Your task to perform on an android device: open sync settings in chrome Image 0: 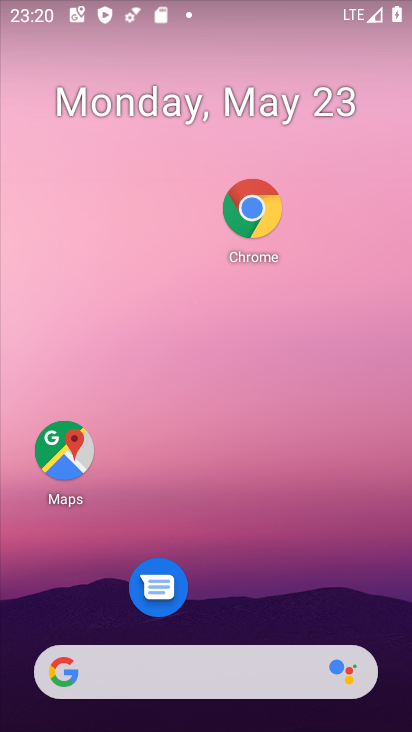
Step 0: drag from (260, 724) to (188, 106)
Your task to perform on an android device: open sync settings in chrome Image 1: 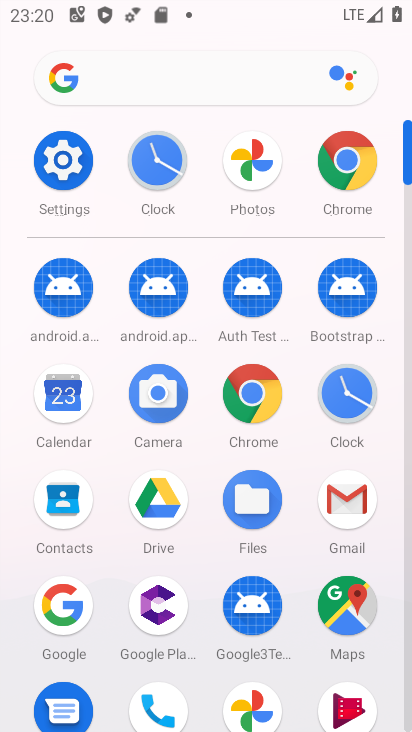
Step 1: click (351, 154)
Your task to perform on an android device: open sync settings in chrome Image 2: 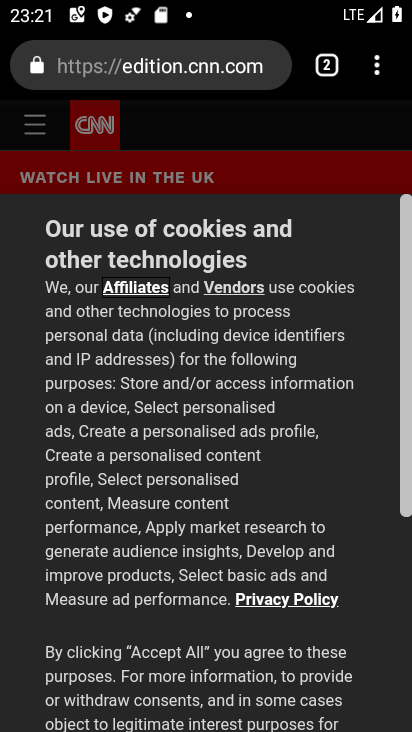
Step 2: drag from (388, 63) to (144, 629)
Your task to perform on an android device: open sync settings in chrome Image 3: 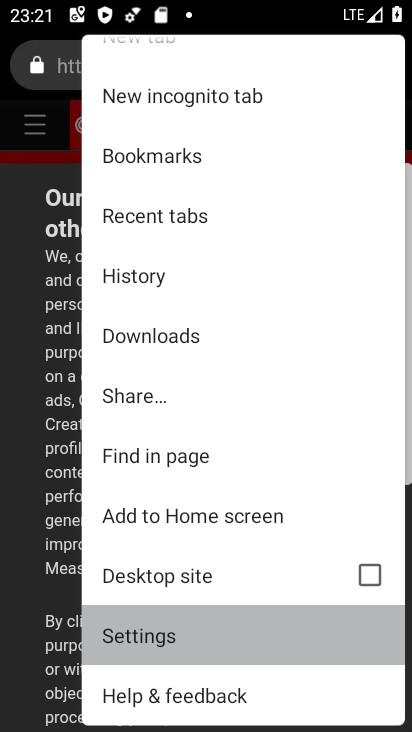
Step 3: click (143, 629)
Your task to perform on an android device: open sync settings in chrome Image 4: 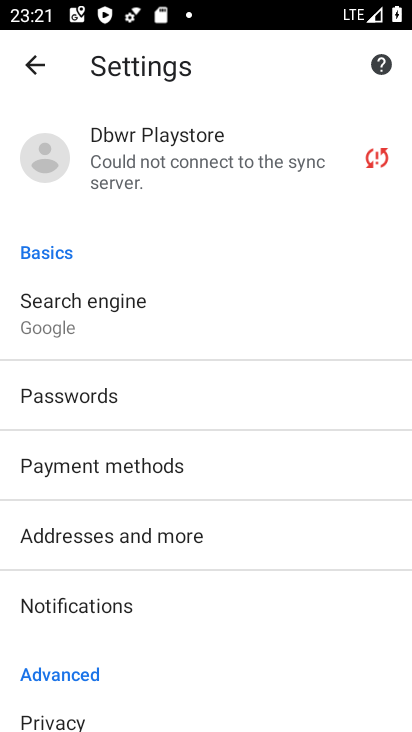
Step 4: drag from (143, 495) to (125, 122)
Your task to perform on an android device: open sync settings in chrome Image 5: 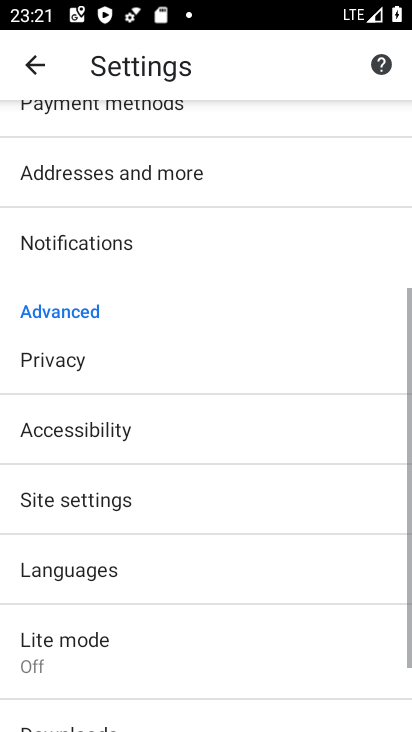
Step 5: drag from (130, 434) to (87, 74)
Your task to perform on an android device: open sync settings in chrome Image 6: 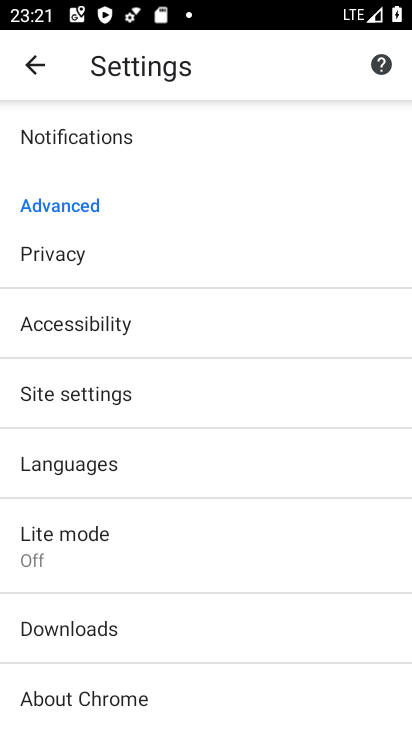
Step 6: click (60, 393)
Your task to perform on an android device: open sync settings in chrome Image 7: 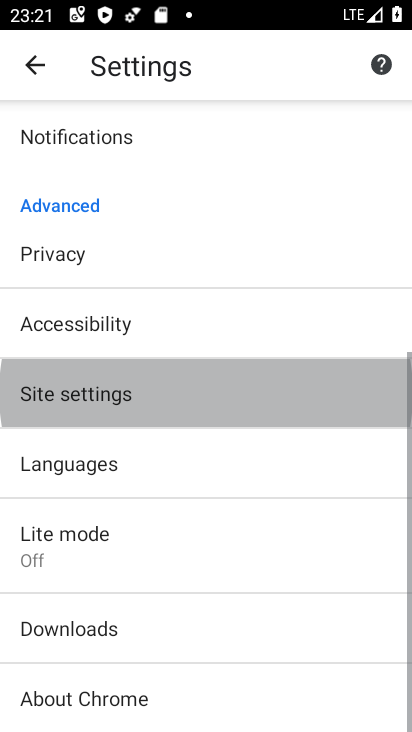
Step 7: click (60, 393)
Your task to perform on an android device: open sync settings in chrome Image 8: 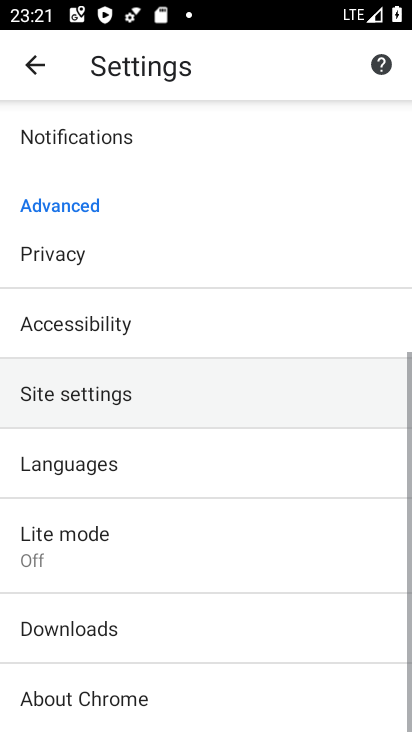
Step 8: click (60, 393)
Your task to perform on an android device: open sync settings in chrome Image 9: 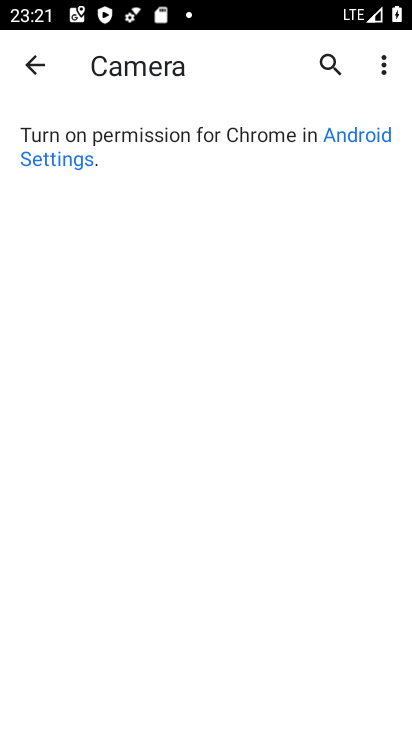
Step 9: click (24, 68)
Your task to perform on an android device: open sync settings in chrome Image 10: 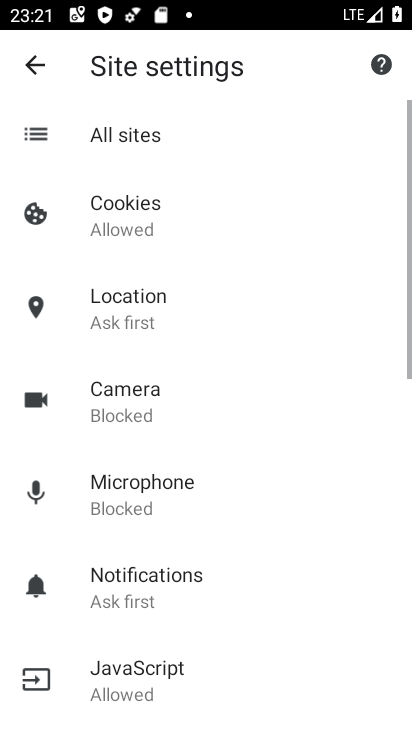
Step 10: drag from (179, 558) to (196, 219)
Your task to perform on an android device: open sync settings in chrome Image 11: 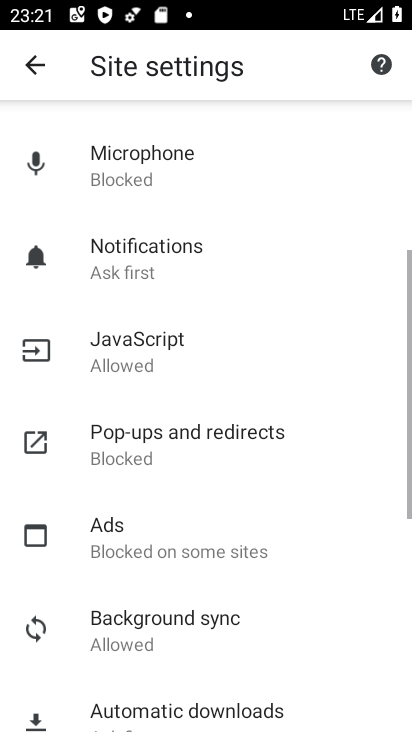
Step 11: drag from (262, 498) to (259, 178)
Your task to perform on an android device: open sync settings in chrome Image 12: 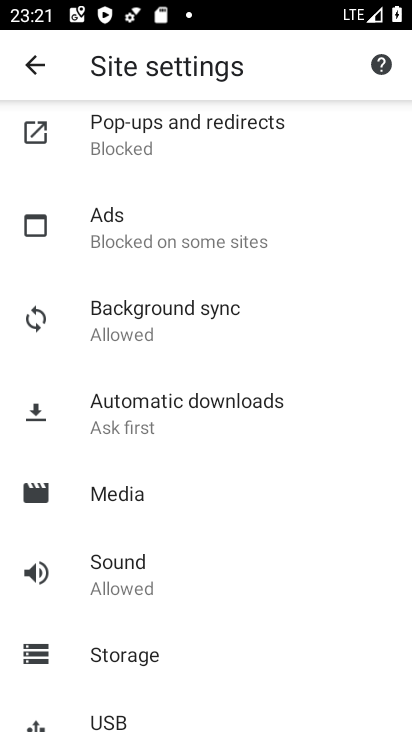
Step 12: click (140, 322)
Your task to perform on an android device: open sync settings in chrome Image 13: 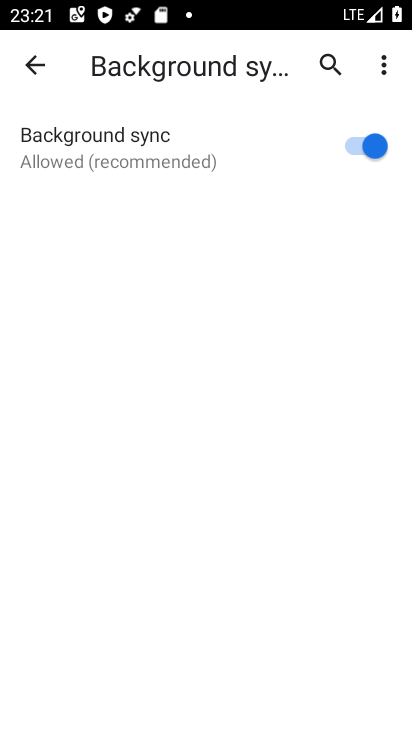
Step 13: task complete